Your task to perform on an android device: Open notification settings Image 0: 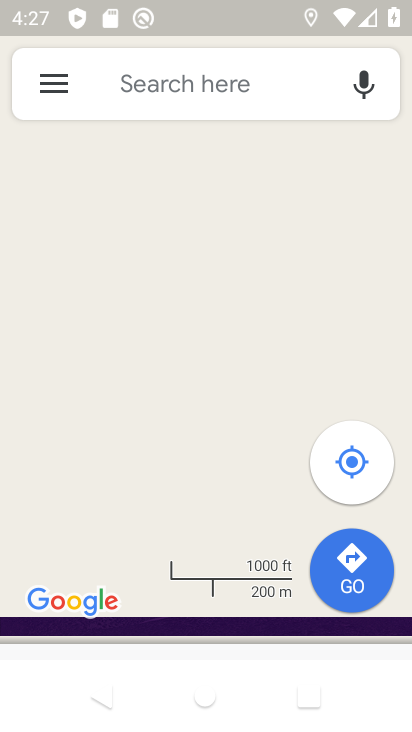
Step 0: click (342, 0)
Your task to perform on an android device: Open notification settings Image 1: 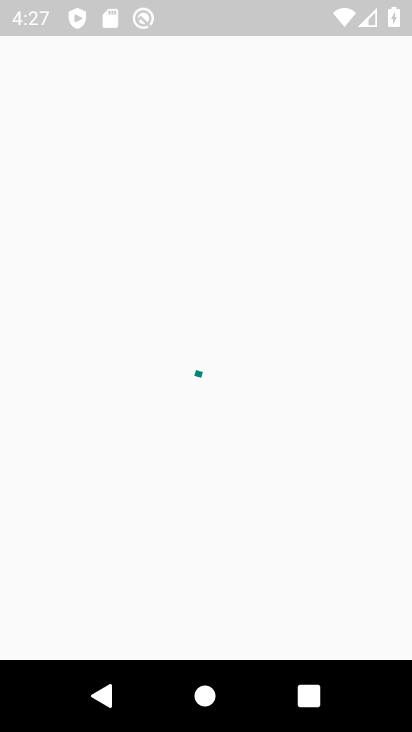
Step 1: press home button
Your task to perform on an android device: Open notification settings Image 2: 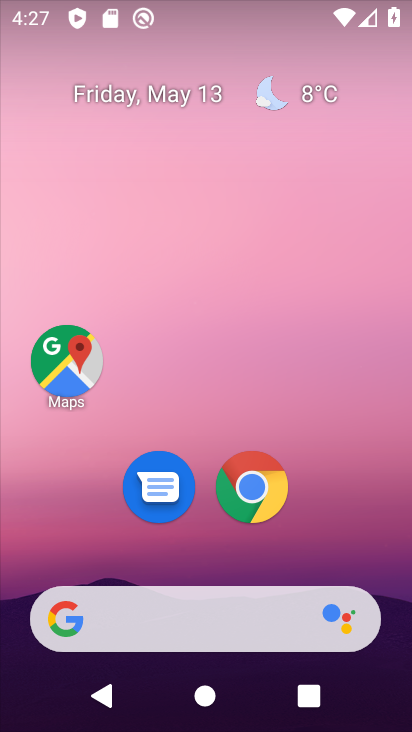
Step 2: drag from (360, 493) to (354, 180)
Your task to perform on an android device: Open notification settings Image 3: 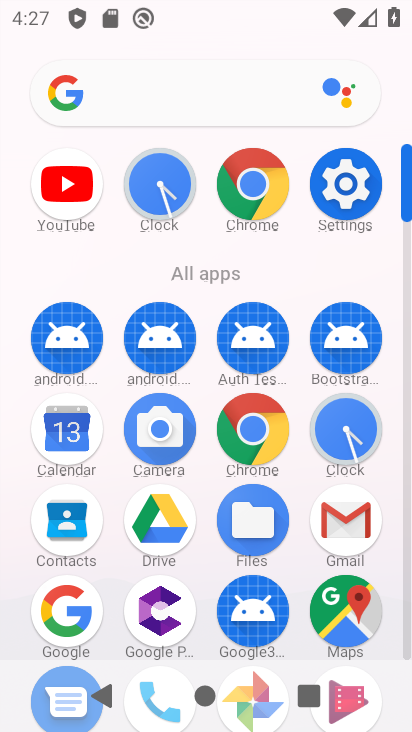
Step 3: click (350, 216)
Your task to perform on an android device: Open notification settings Image 4: 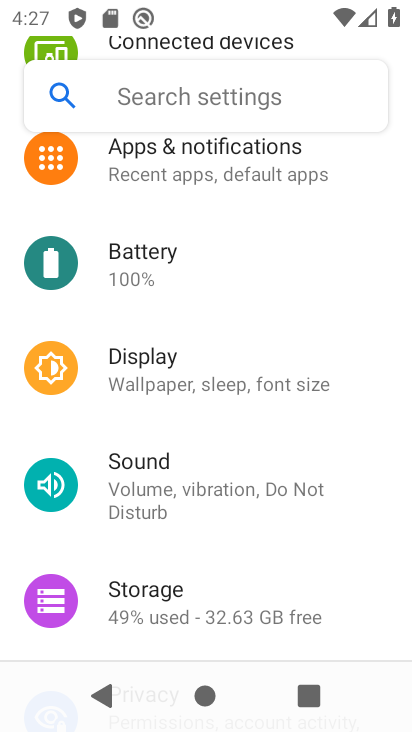
Step 4: drag from (237, 470) to (268, 352)
Your task to perform on an android device: Open notification settings Image 5: 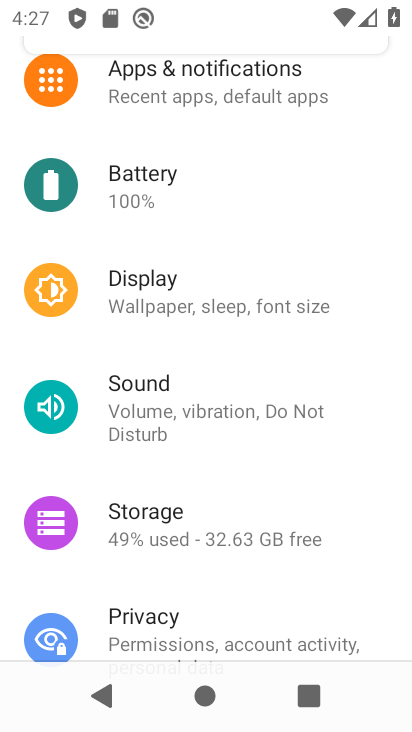
Step 5: click (207, 106)
Your task to perform on an android device: Open notification settings Image 6: 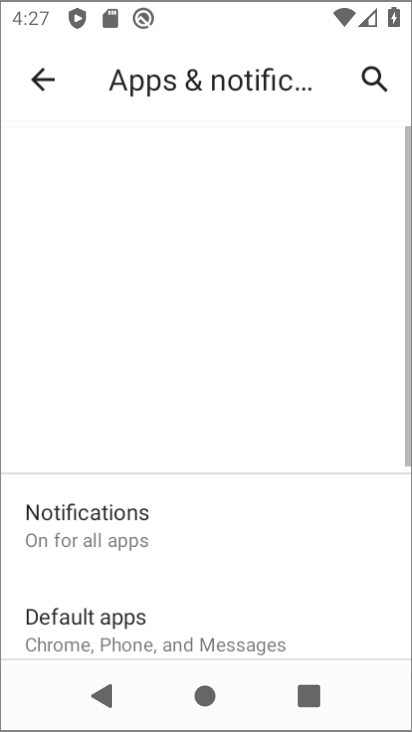
Step 6: task complete